Your task to perform on an android device: Open the calendar app, open the side menu, and click the "Day" option Image 0: 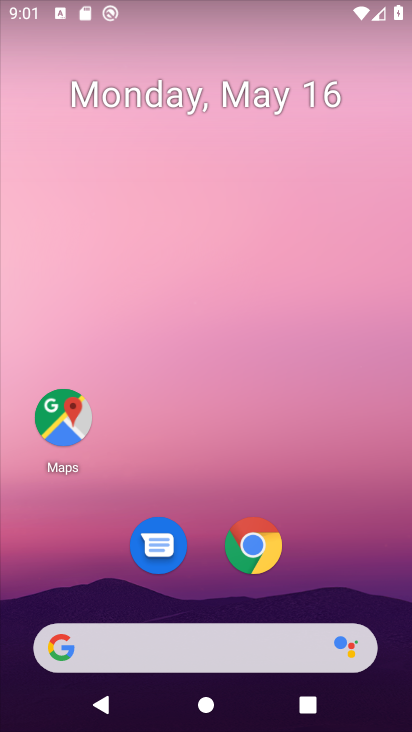
Step 0: click (244, 87)
Your task to perform on an android device: Open the calendar app, open the side menu, and click the "Day" option Image 1: 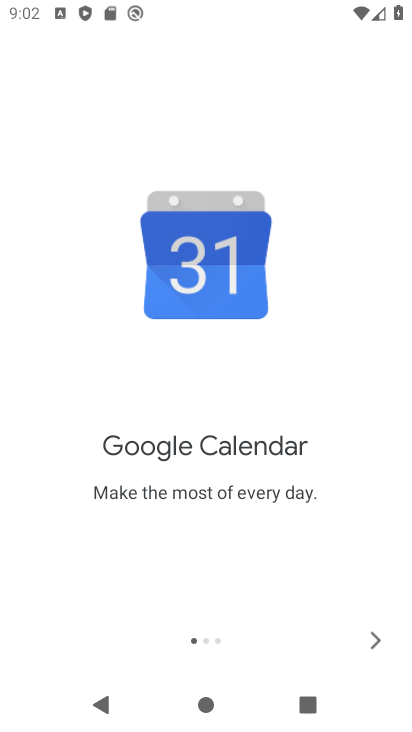
Step 1: click (377, 652)
Your task to perform on an android device: Open the calendar app, open the side menu, and click the "Day" option Image 2: 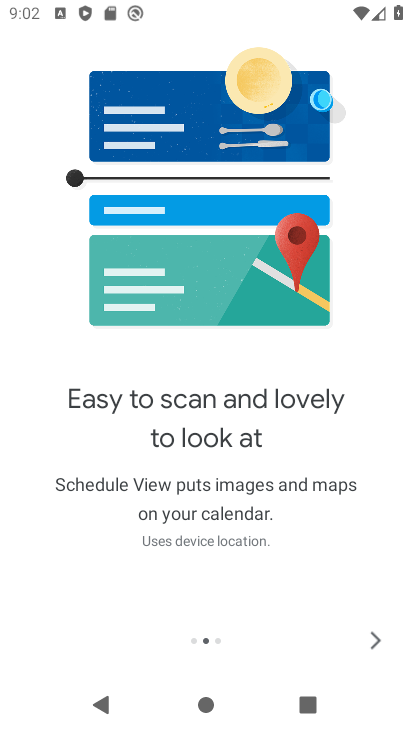
Step 2: click (375, 635)
Your task to perform on an android device: Open the calendar app, open the side menu, and click the "Day" option Image 3: 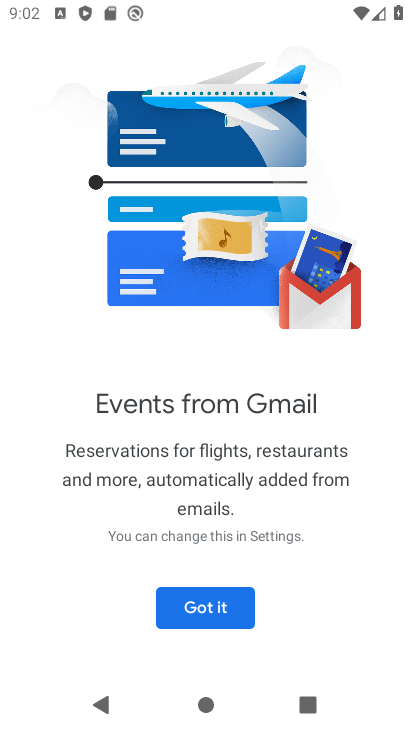
Step 3: click (375, 635)
Your task to perform on an android device: Open the calendar app, open the side menu, and click the "Day" option Image 4: 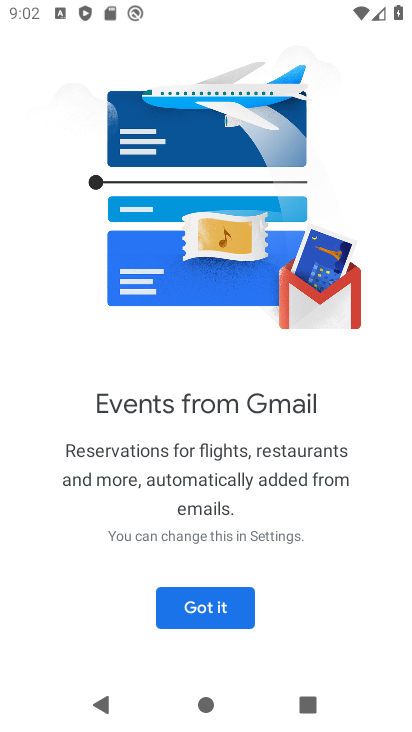
Step 4: click (227, 599)
Your task to perform on an android device: Open the calendar app, open the side menu, and click the "Day" option Image 5: 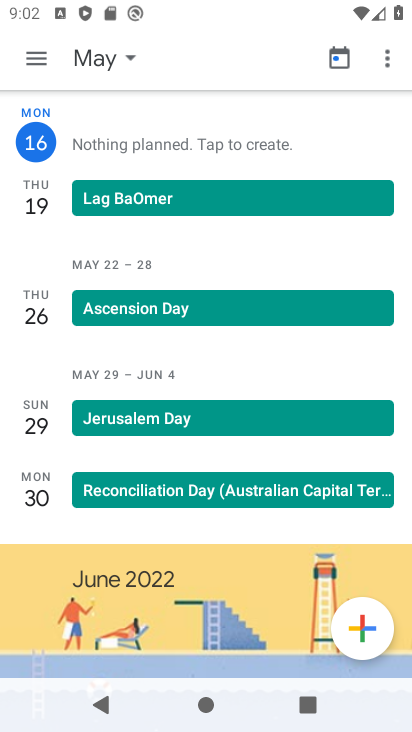
Step 5: click (48, 68)
Your task to perform on an android device: Open the calendar app, open the side menu, and click the "Day" option Image 6: 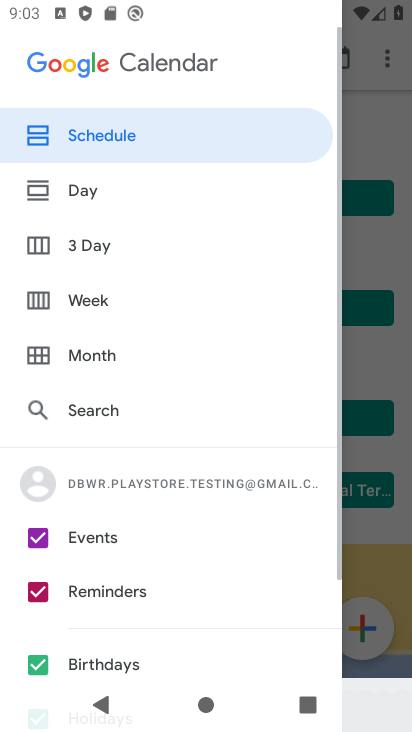
Step 6: click (91, 188)
Your task to perform on an android device: Open the calendar app, open the side menu, and click the "Day" option Image 7: 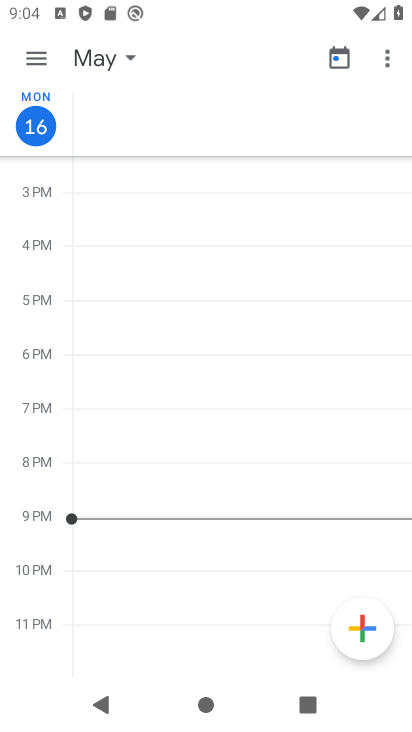
Step 7: task complete